Your task to perform on an android device: change the clock display to analog Image 0: 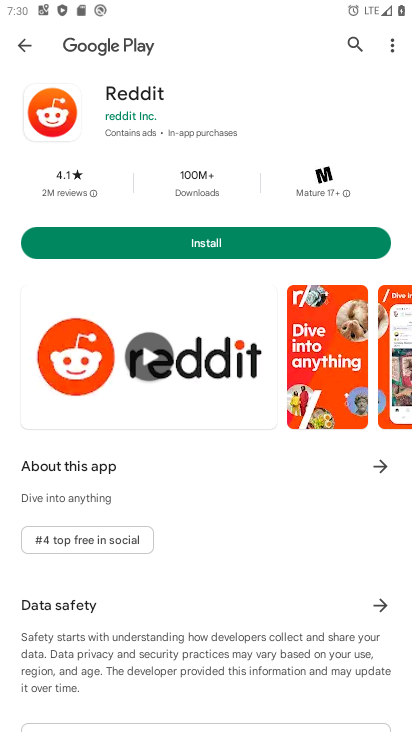
Step 0: press home button
Your task to perform on an android device: change the clock display to analog Image 1: 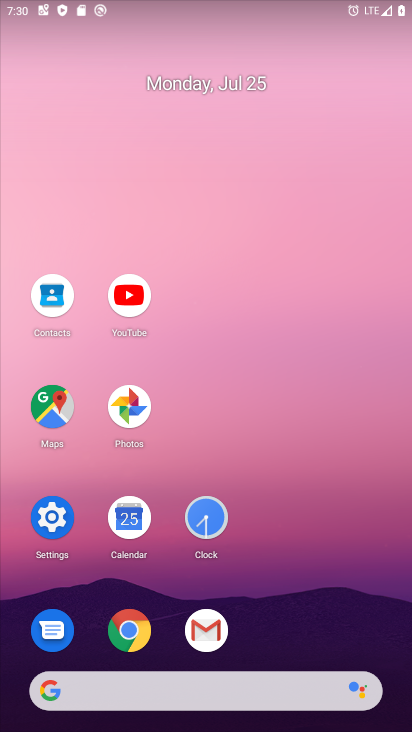
Step 1: click (206, 522)
Your task to perform on an android device: change the clock display to analog Image 2: 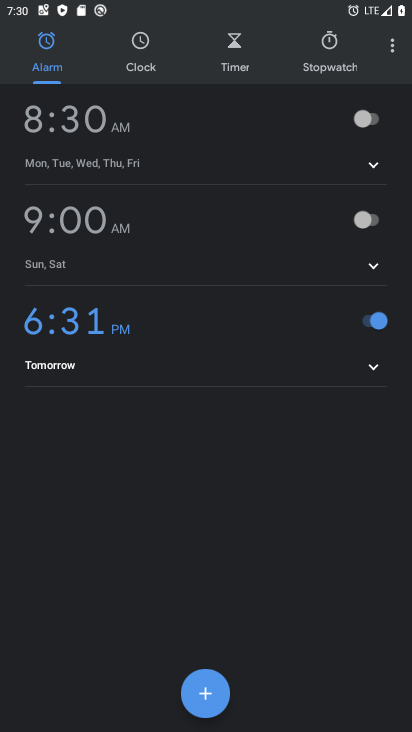
Step 2: click (392, 41)
Your task to perform on an android device: change the clock display to analog Image 3: 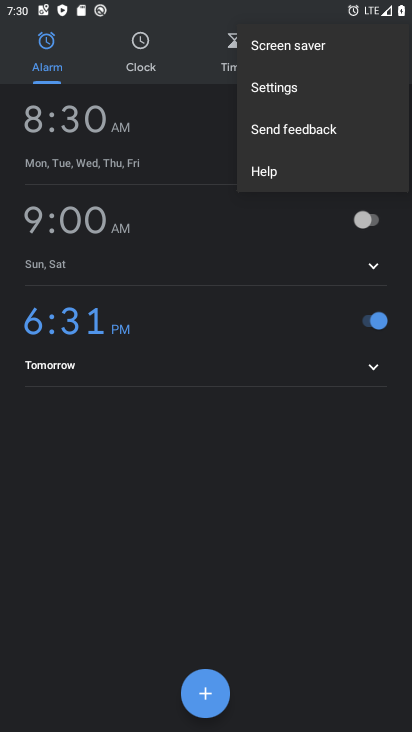
Step 3: click (285, 88)
Your task to perform on an android device: change the clock display to analog Image 4: 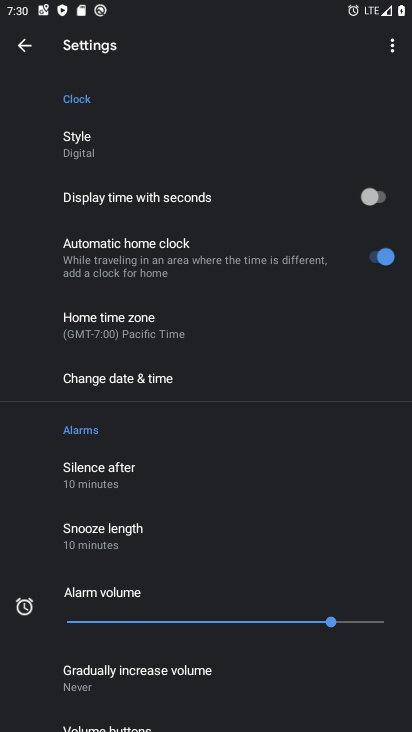
Step 4: click (285, 88)
Your task to perform on an android device: change the clock display to analog Image 5: 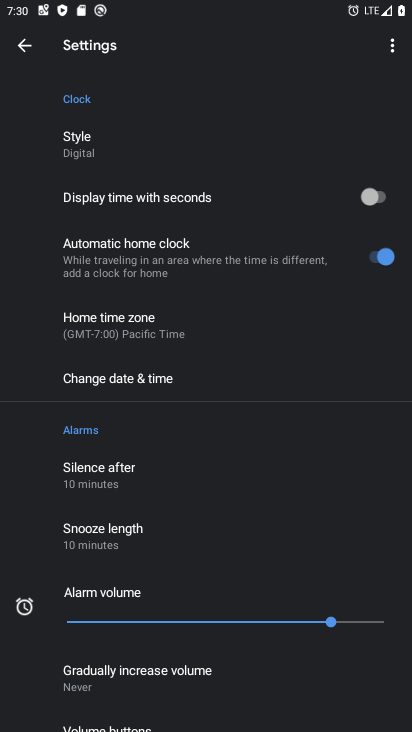
Step 5: click (78, 141)
Your task to perform on an android device: change the clock display to analog Image 6: 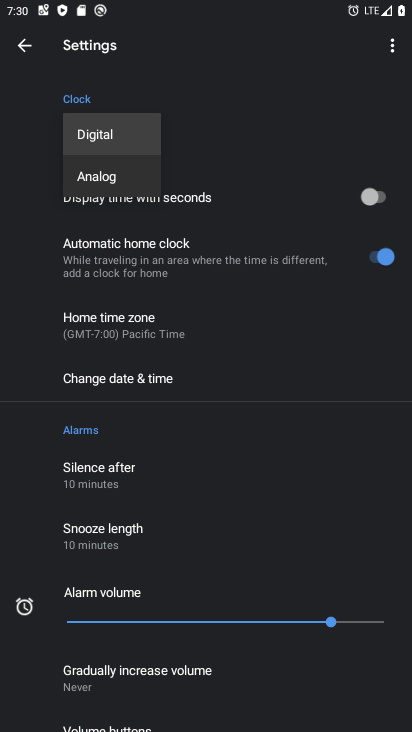
Step 6: click (91, 177)
Your task to perform on an android device: change the clock display to analog Image 7: 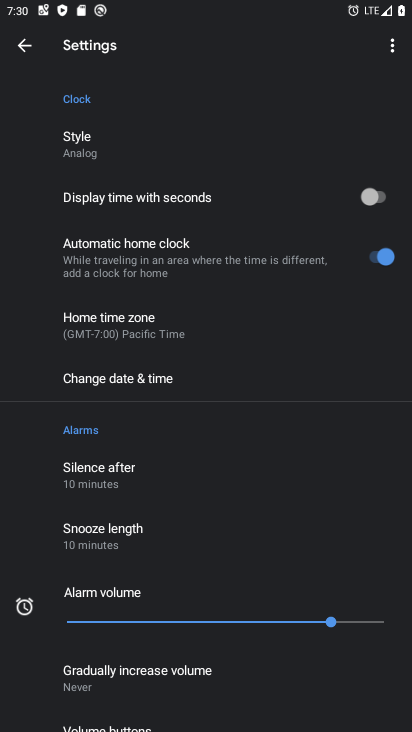
Step 7: task complete